Your task to perform on an android device: add a label to a message in the gmail app Image 0: 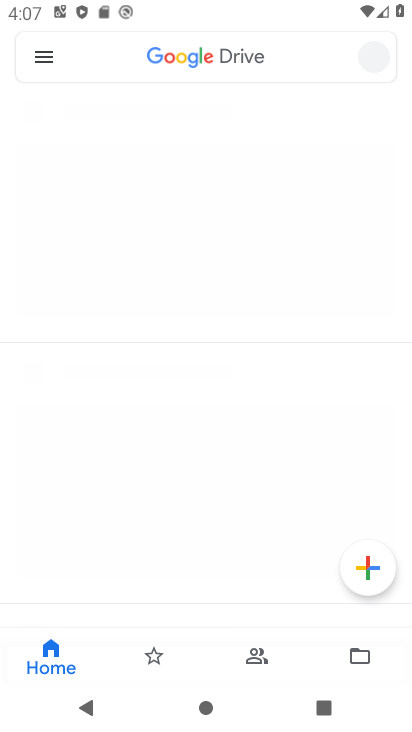
Step 0: drag from (310, 569) to (280, 186)
Your task to perform on an android device: add a label to a message in the gmail app Image 1: 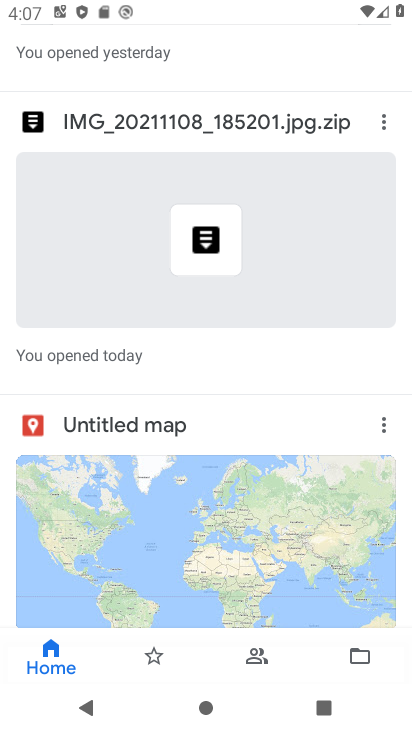
Step 1: press back button
Your task to perform on an android device: add a label to a message in the gmail app Image 2: 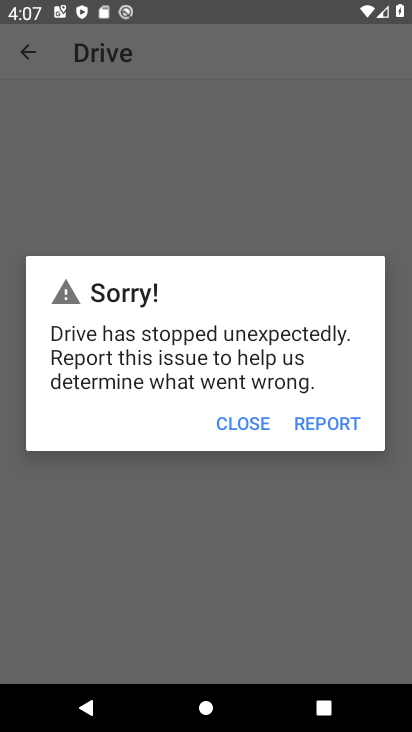
Step 2: press back button
Your task to perform on an android device: add a label to a message in the gmail app Image 3: 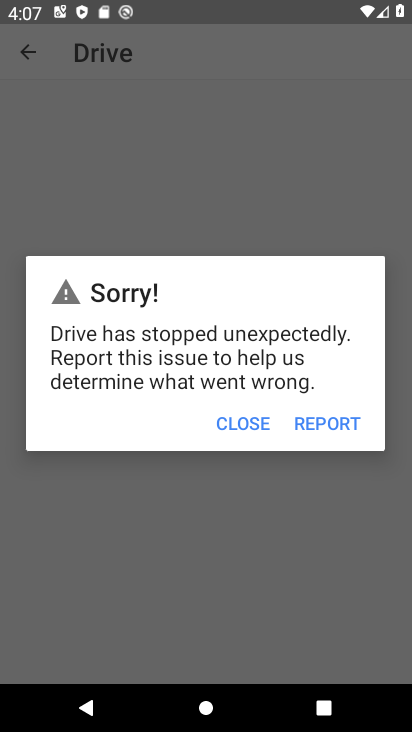
Step 3: press home button
Your task to perform on an android device: add a label to a message in the gmail app Image 4: 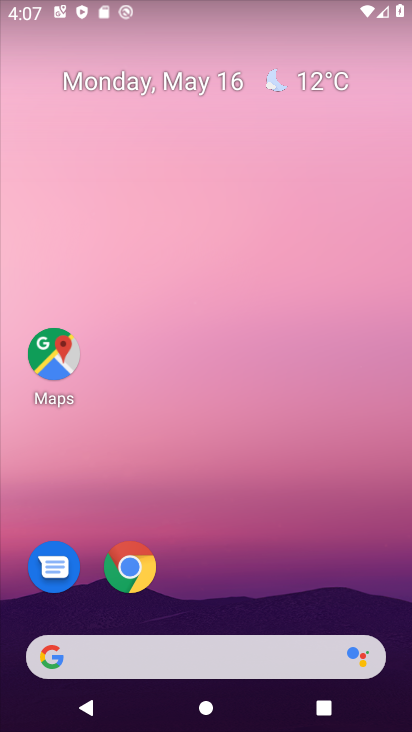
Step 4: drag from (254, 529) to (241, 70)
Your task to perform on an android device: add a label to a message in the gmail app Image 5: 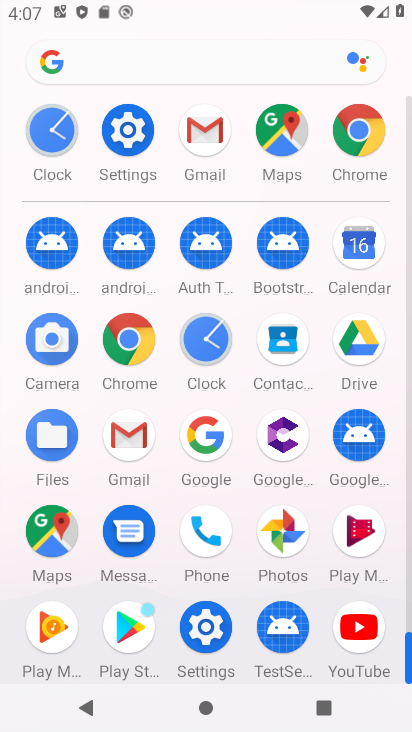
Step 5: click (128, 434)
Your task to perform on an android device: add a label to a message in the gmail app Image 6: 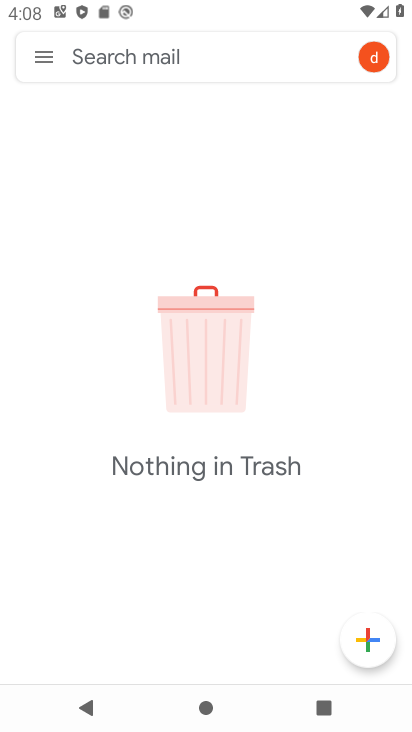
Step 6: click (38, 49)
Your task to perform on an android device: add a label to a message in the gmail app Image 7: 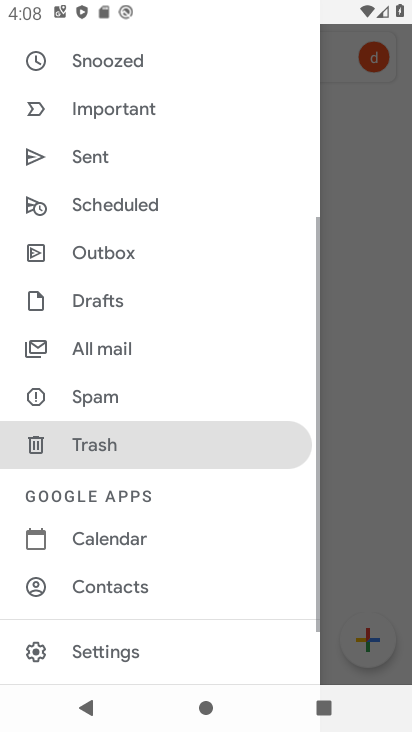
Step 7: drag from (168, 63) to (168, 565)
Your task to perform on an android device: add a label to a message in the gmail app Image 8: 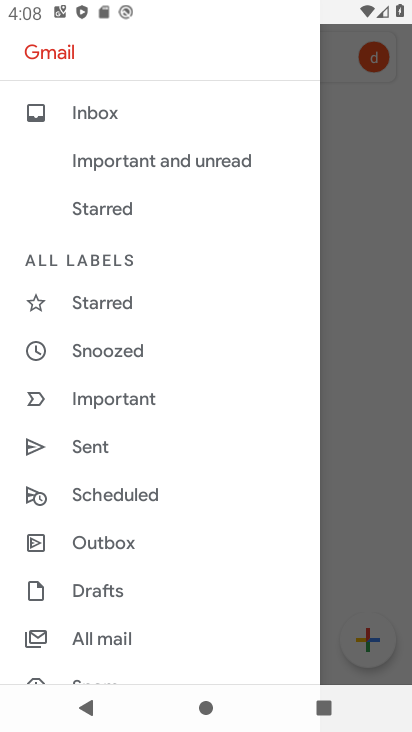
Step 8: drag from (193, 557) to (225, 211)
Your task to perform on an android device: add a label to a message in the gmail app Image 9: 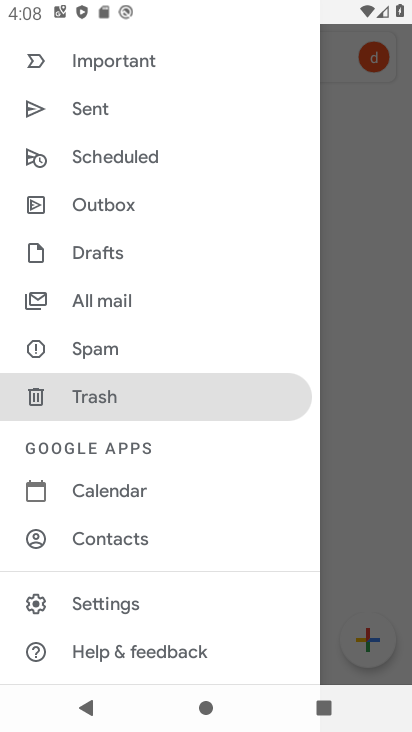
Step 9: drag from (187, 419) to (190, 119)
Your task to perform on an android device: add a label to a message in the gmail app Image 10: 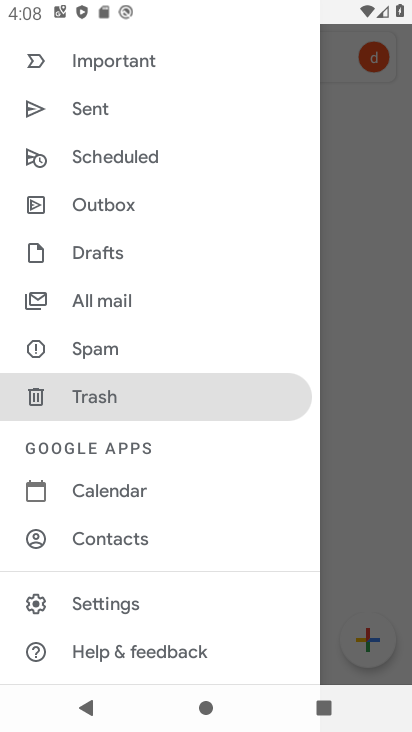
Step 10: click (134, 297)
Your task to perform on an android device: add a label to a message in the gmail app Image 11: 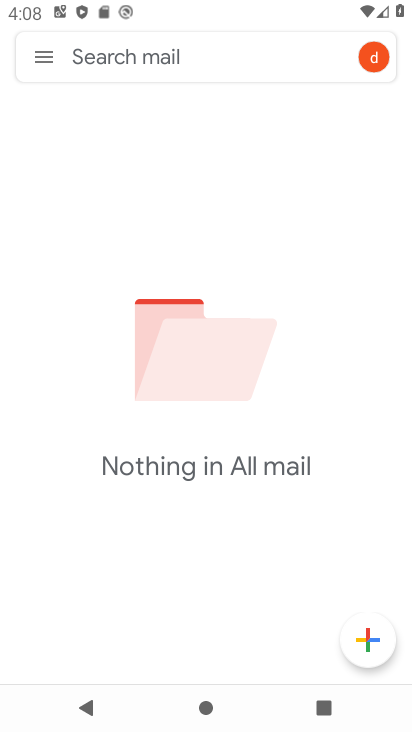
Step 11: click (48, 45)
Your task to perform on an android device: add a label to a message in the gmail app Image 12: 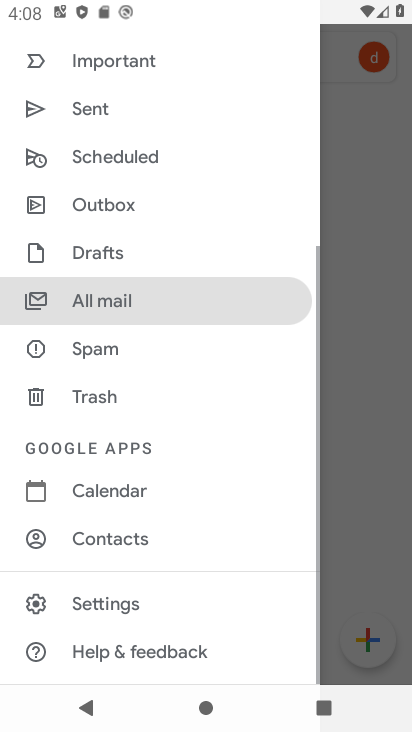
Step 12: drag from (281, 181) to (268, 665)
Your task to perform on an android device: add a label to a message in the gmail app Image 13: 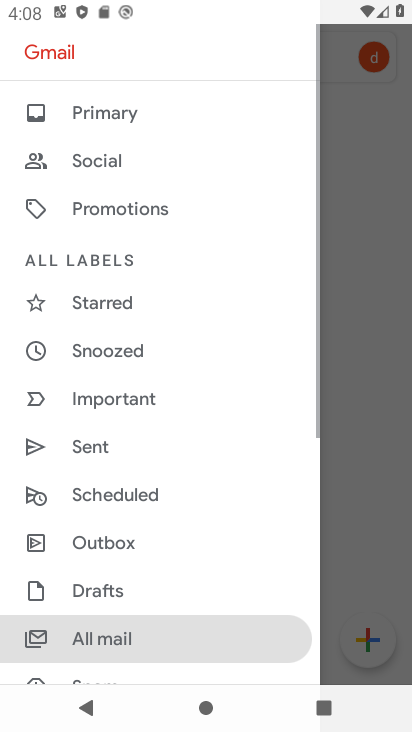
Step 13: click (155, 115)
Your task to perform on an android device: add a label to a message in the gmail app Image 14: 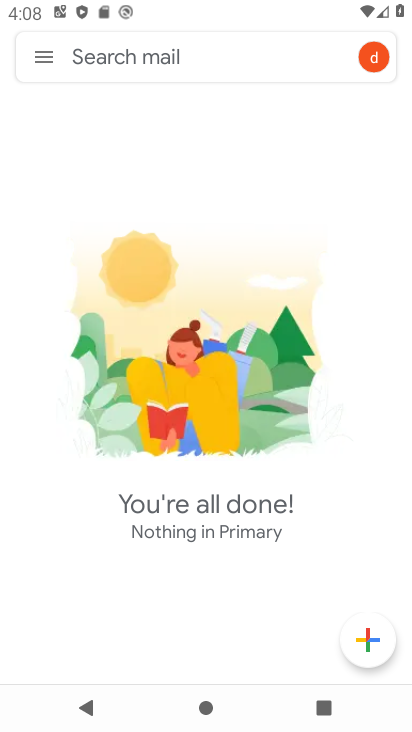
Step 14: task complete